Your task to perform on an android device: toggle notifications settings in the gmail app Image 0: 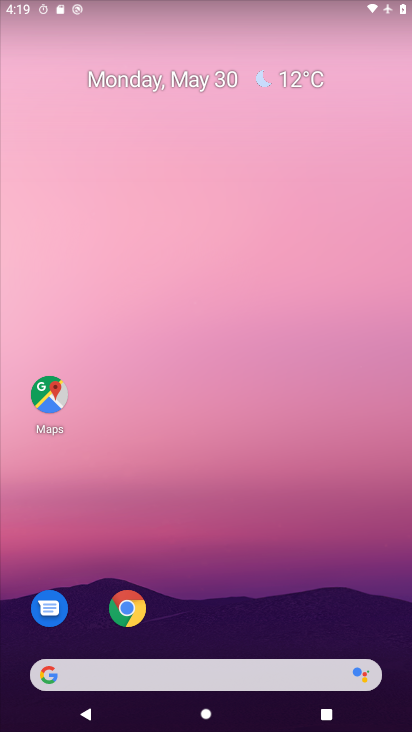
Step 0: drag from (292, 579) to (193, 2)
Your task to perform on an android device: toggle notifications settings in the gmail app Image 1: 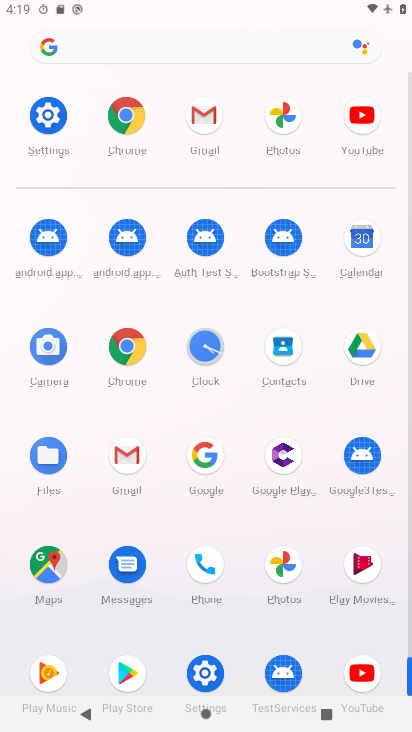
Step 1: click (104, 456)
Your task to perform on an android device: toggle notifications settings in the gmail app Image 2: 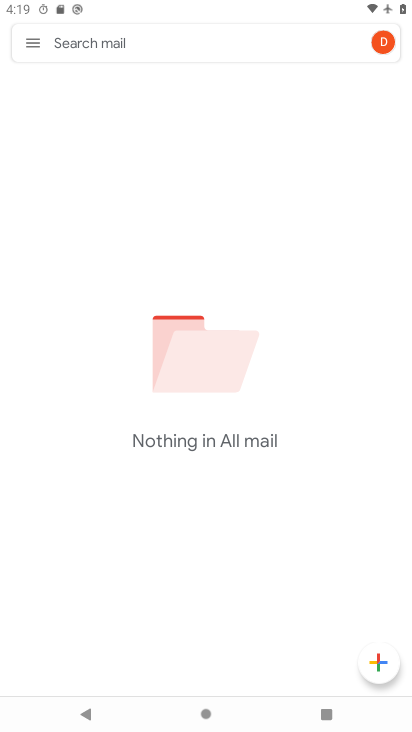
Step 2: click (31, 38)
Your task to perform on an android device: toggle notifications settings in the gmail app Image 3: 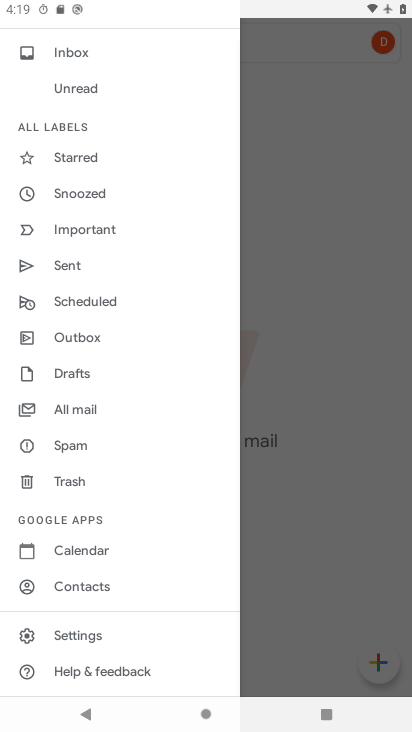
Step 3: click (101, 631)
Your task to perform on an android device: toggle notifications settings in the gmail app Image 4: 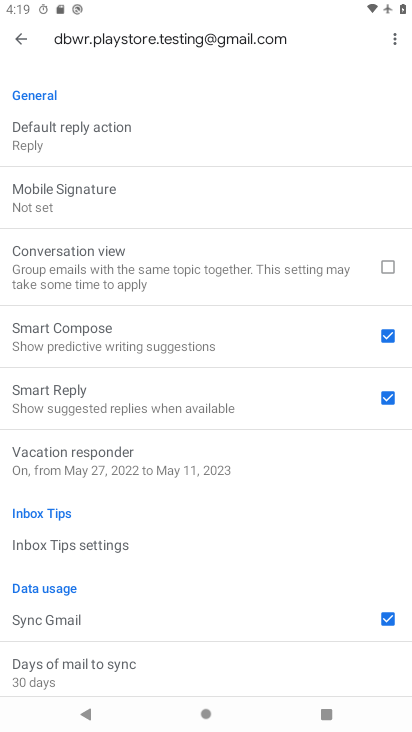
Step 4: drag from (183, 184) to (156, 731)
Your task to perform on an android device: toggle notifications settings in the gmail app Image 5: 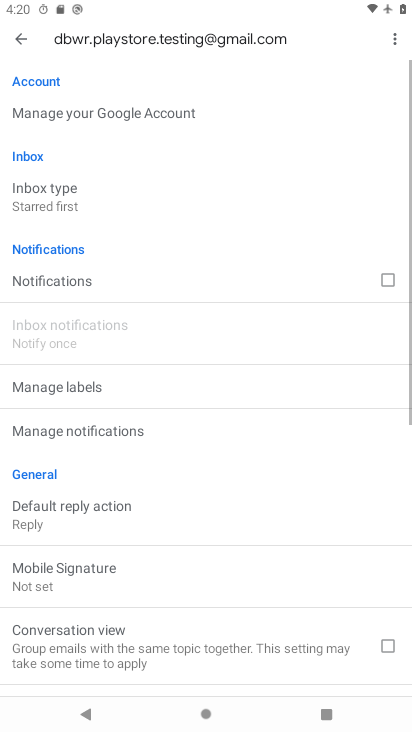
Step 5: click (137, 292)
Your task to perform on an android device: toggle notifications settings in the gmail app Image 6: 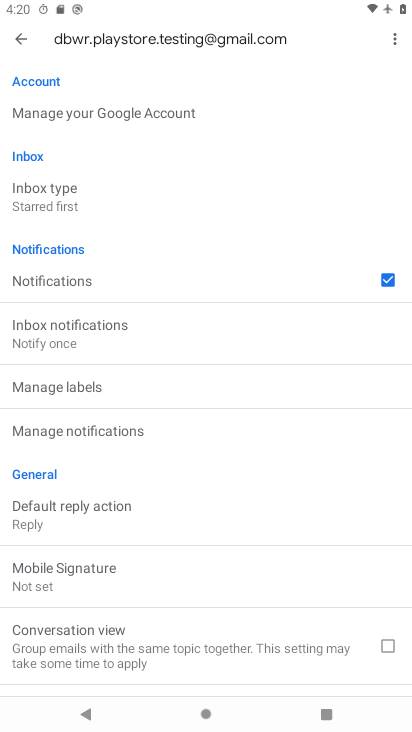
Step 6: task complete